Your task to perform on an android device: set default search engine in the chrome app Image 0: 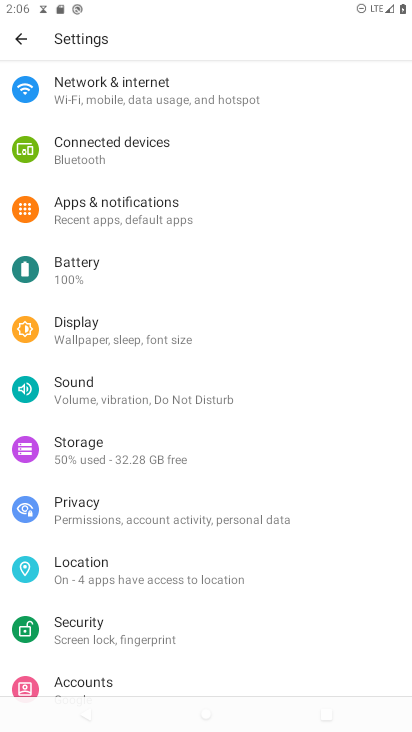
Step 0: press home button
Your task to perform on an android device: set default search engine in the chrome app Image 1: 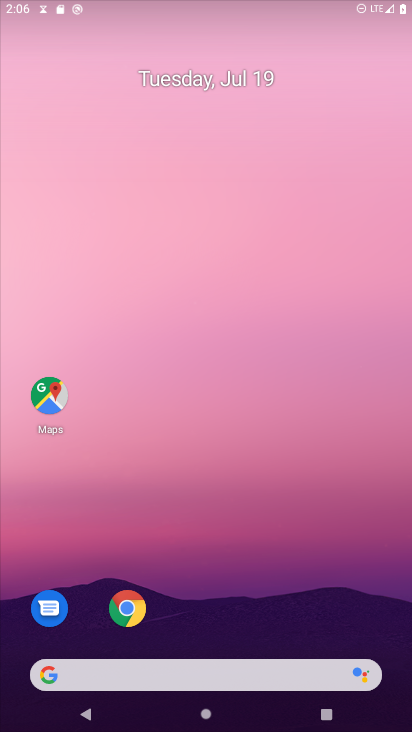
Step 1: drag from (102, 591) to (151, 121)
Your task to perform on an android device: set default search engine in the chrome app Image 2: 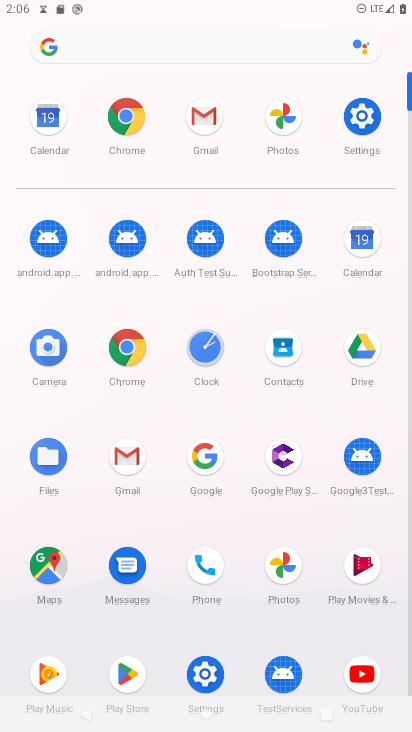
Step 2: click (130, 368)
Your task to perform on an android device: set default search engine in the chrome app Image 3: 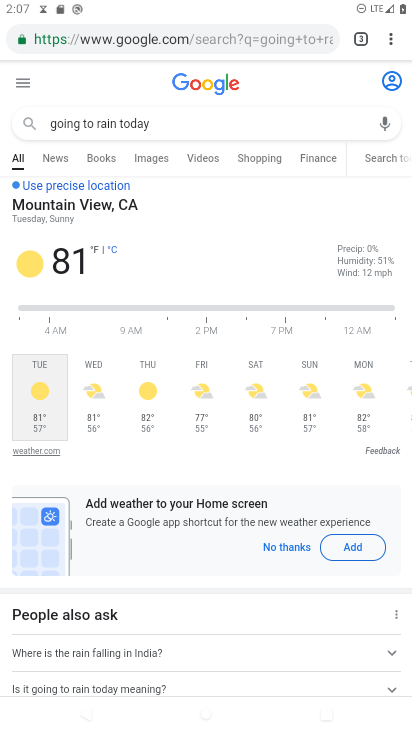
Step 3: drag from (389, 40) to (257, 436)
Your task to perform on an android device: set default search engine in the chrome app Image 4: 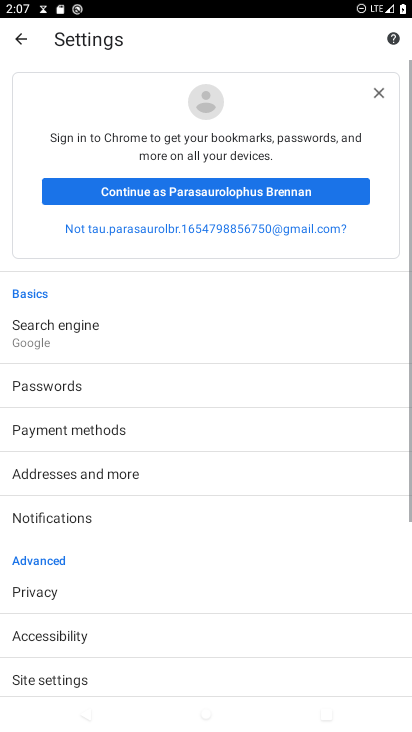
Step 4: click (96, 333)
Your task to perform on an android device: set default search engine in the chrome app Image 5: 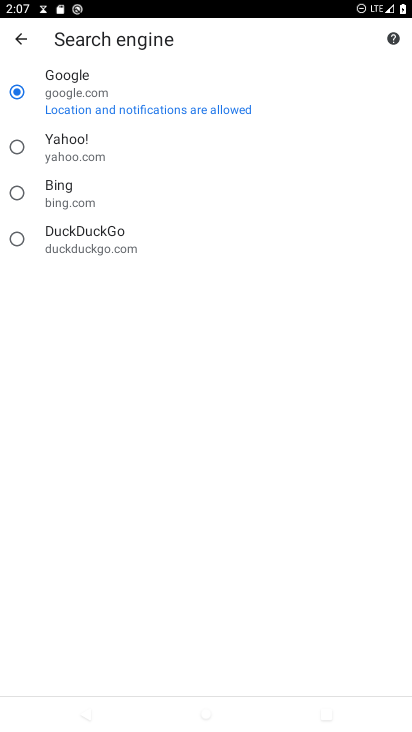
Step 5: task complete